Your task to perform on an android device: toggle pop-ups in chrome Image 0: 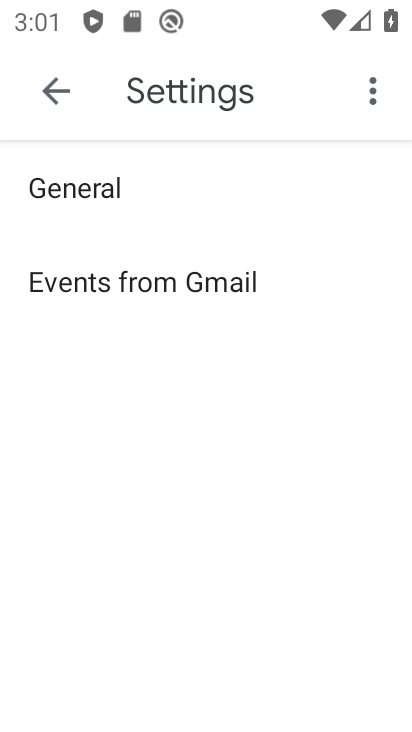
Step 0: press home button
Your task to perform on an android device: toggle pop-ups in chrome Image 1: 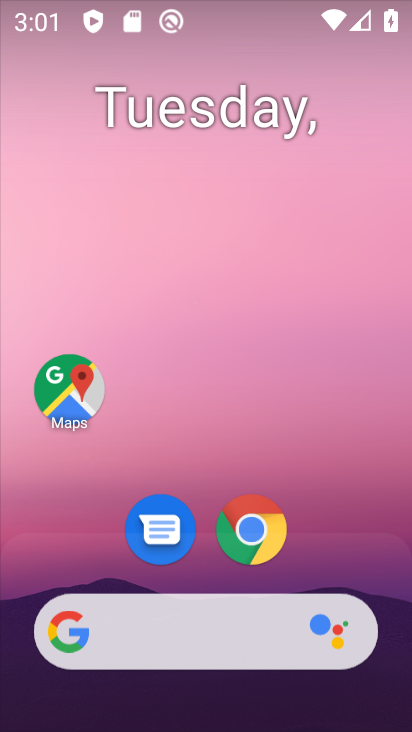
Step 1: click (240, 533)
Your task to perform on an android device: toggle pop-ups in chrome Image 2: 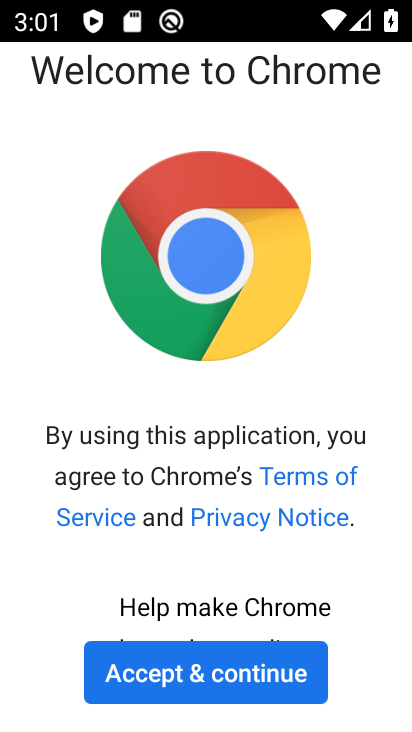
Step 2: click (174, 688)
Your task to perform on an android device: toggle pop-ups in chrome Image 3: 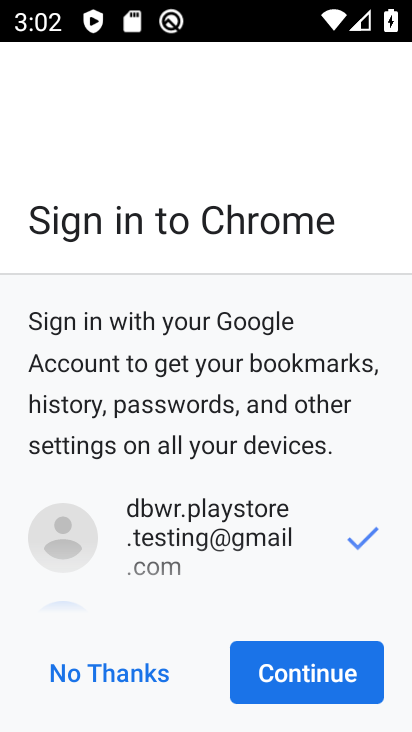
Step 3: click (333, 676)
Your task to perform on an android device: toggle pop-ups in chrome Image 4: 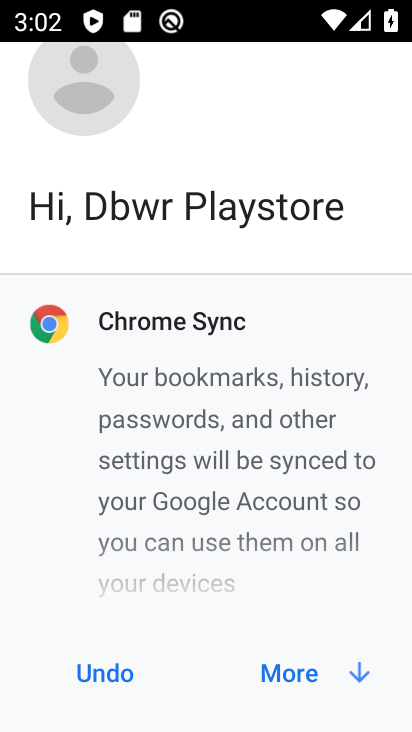
Step 4: click (326, 678)
Your task to perform on an android device: toggle pop-ups in chrome Image 5: 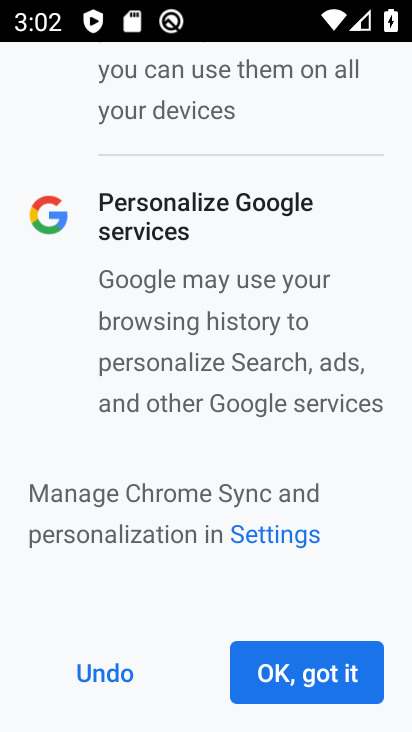
Step 5: click (326, 678)
Your task to perform on an android device: toggle pop-ups in chrome Image 6: 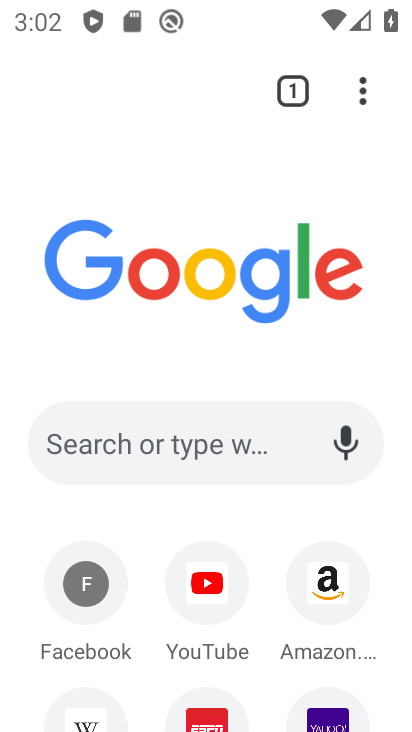
Step 6: click (368, 87)
Your task to perform on an android device: toggle pop-ups in chrome Image 7: 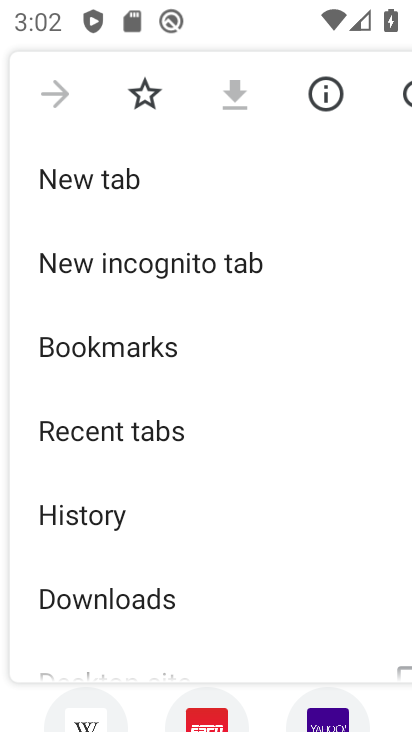
Step 7: drag from (202, 556) to (205, 280)
Your task to perform on an android device: toggle pop-ups in chrome Image 8: 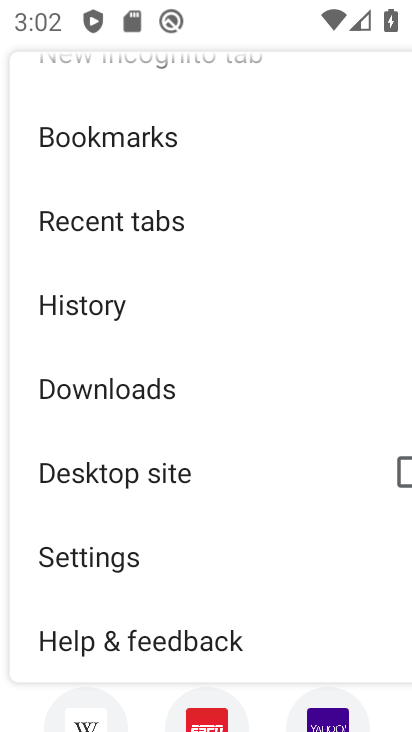
Step 8: click (100, 563)
Your task to perform on an android device: toggle pop-ups in chrome Image 9: 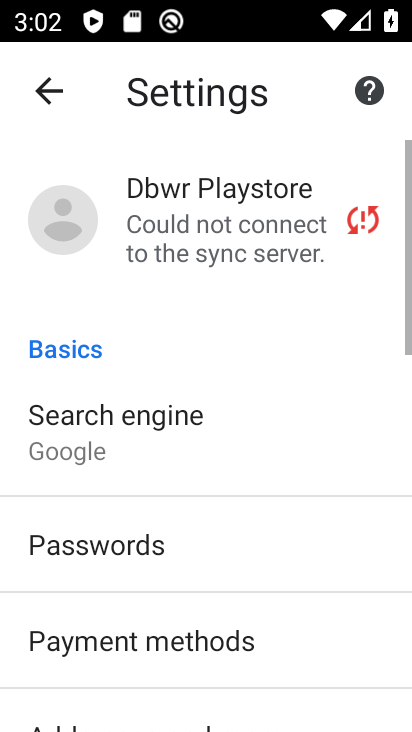
Step 9: drag from (186, 685) to (186, 244)
Your task to perform on an android device: toggle pop-ups in chrome Image 10: 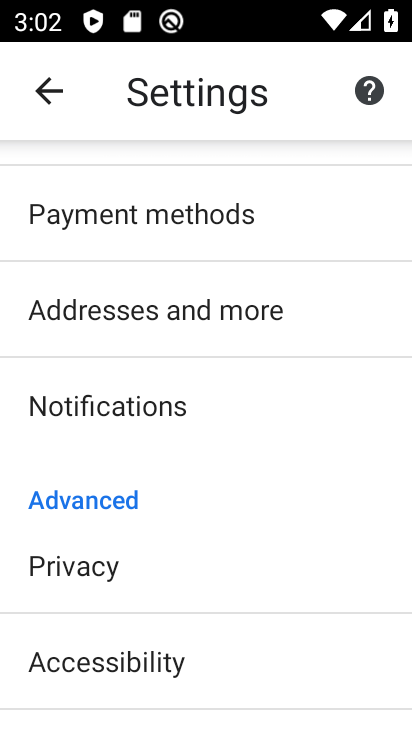
Step 10: drag from (107, 614) to (119, 208)
Your task to perform on an android device: toggle pop-ups in chrome Image 11: 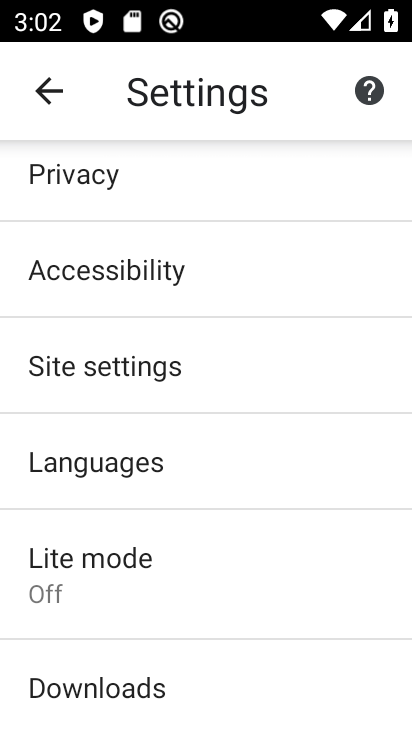
Step 11: click (119, 369)
Your task to perform on an android device: toggle pop-ups in chrome Image 12: 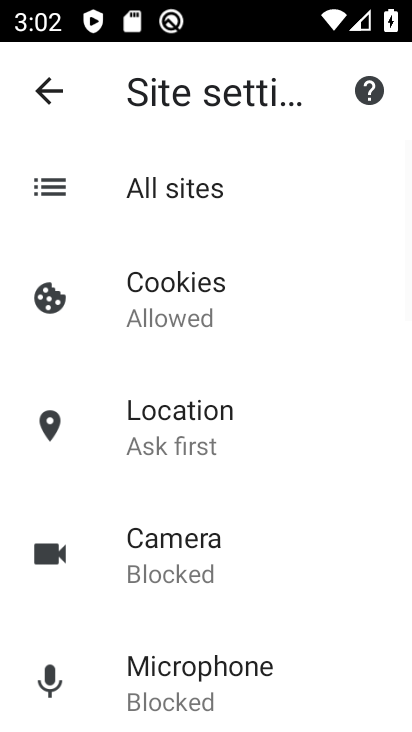
Step 12: click (202, 286)
Your task to perform on an android device: toggle pop-ups in chrome Image 13: 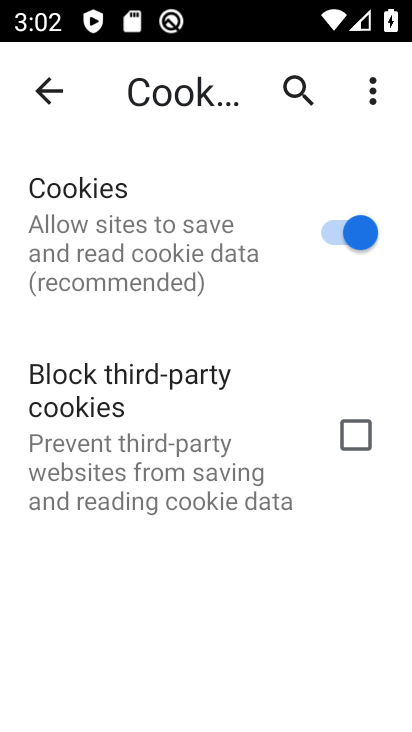
Step 13: click (61, 85)
Your task to perform on an android device: toggle pop-ups in chrome Image 14: 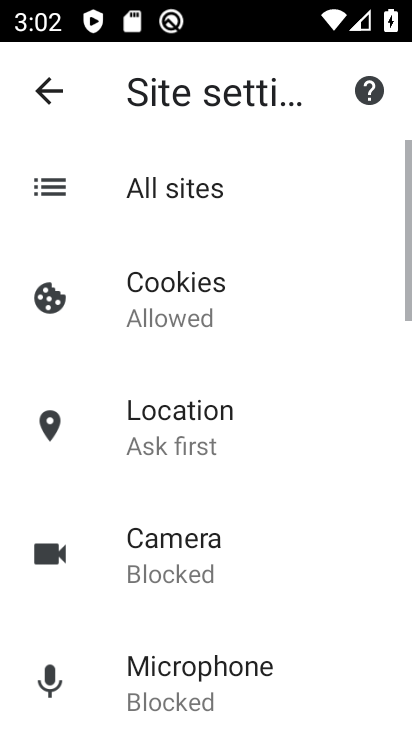
Step 14: drag from (216, 715) to (241, 319)
Your task to perform on an android device: toggle pop-ups in chrome Image 15: 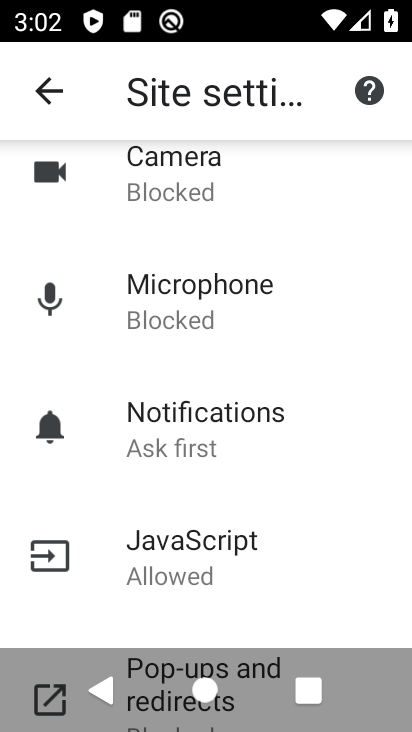
Step 15: drag from (174, 632) to (201, 321)
Your task to perform on an android device: toggle pop-ups in chrome Image 16: 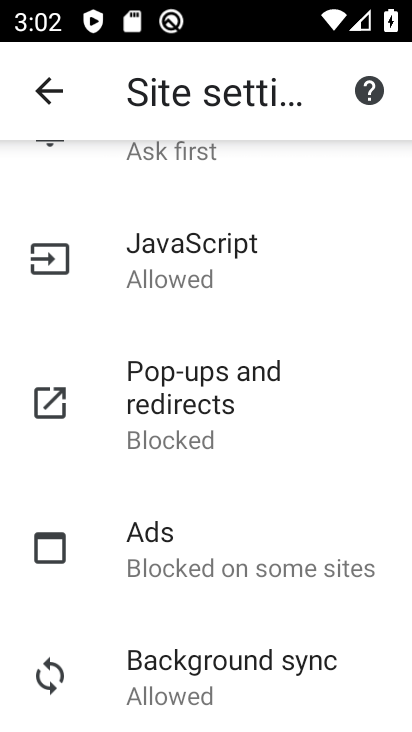
Step 16: click (204, 379)
Your task to perform on an android device: toggle pop-ups in chrome Image 17: 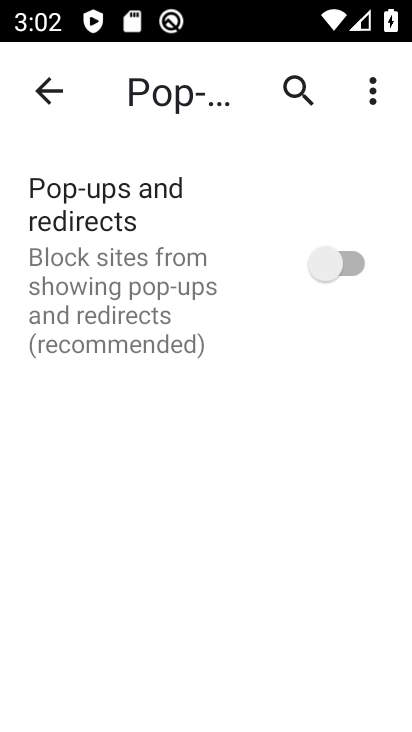
Step 17: click (352, 258)
Your task to perform on an android device: toggle pop-ups in chrome Image 18: 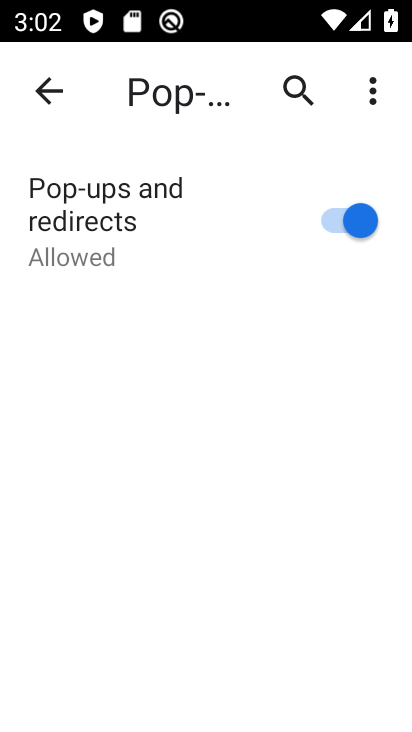
Step 18: task complete